Your task to perform on an android device: turn notification dots off Image 0: 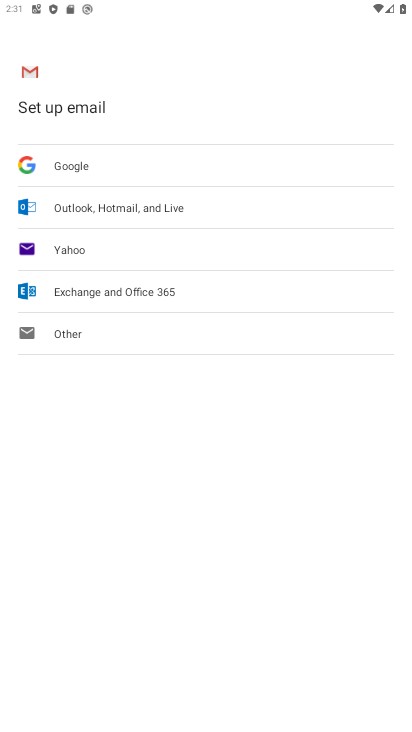
Step 0: drag from (238, 321) to (244, 20)
Your task to perform on an android device: turn notification dots off Image 1: 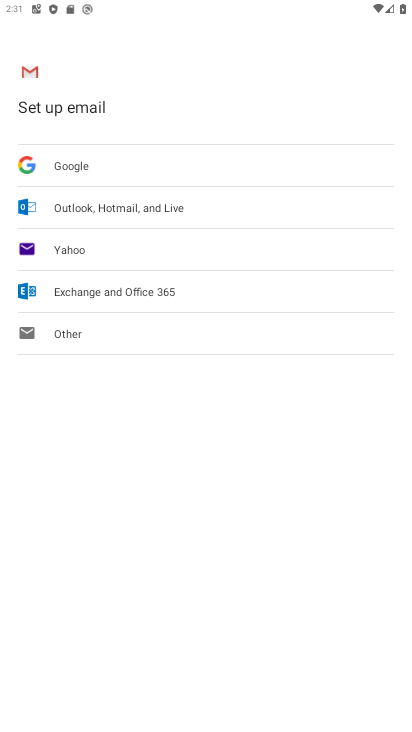
Step 1: press home button
Your task to perform on an android device: turn notification dots off Image 2: 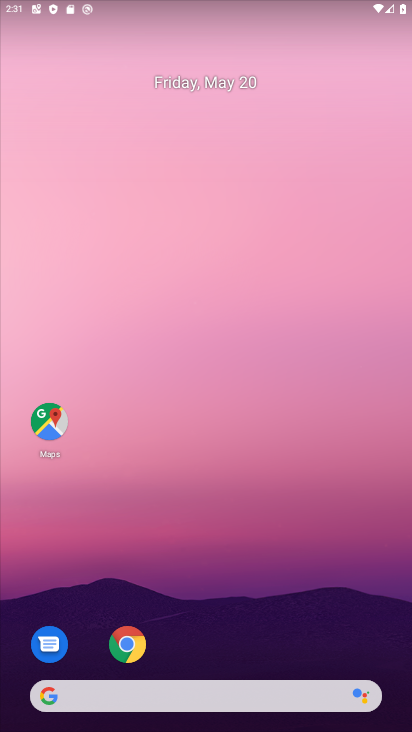
Step 2: drag from (311, 623) to (265, 82)
Your task to perform on an android device: turn notification dots off Image 3: 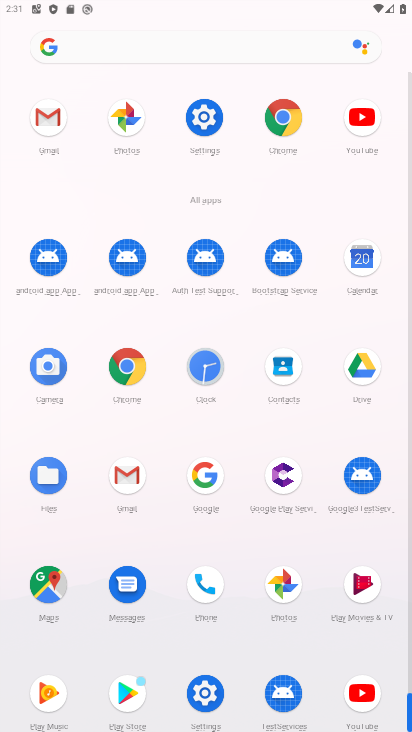
Step 3: click (206, 104)
Your task to perform on an android device: turn notification dots off Image 4: 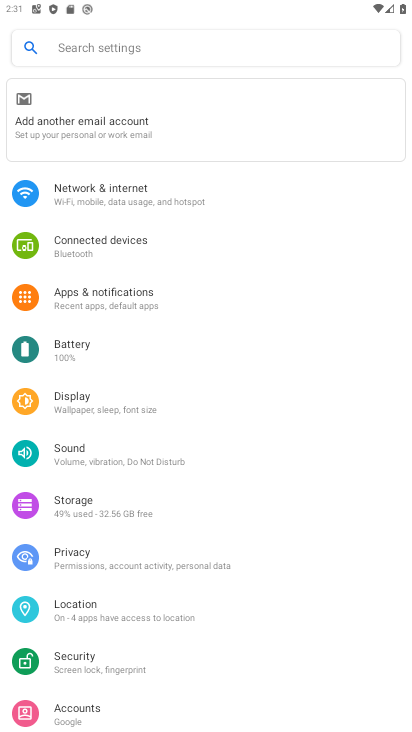
Step 4: click (145, 294)
Your task to perform on an android device: turn notification dots off Image 5: 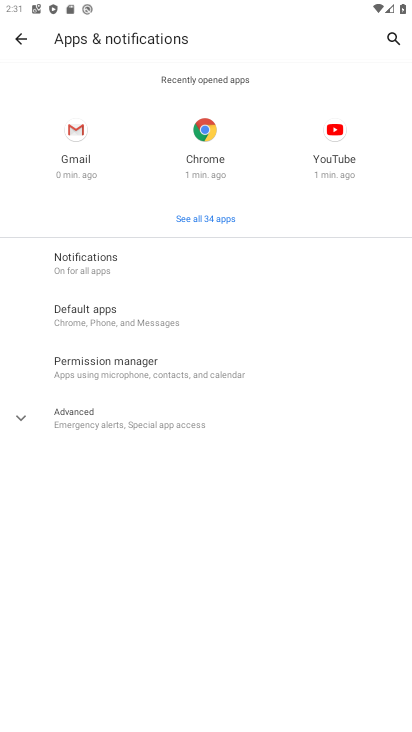
Step 5: click (115, 257)
Your task to perform on an android device: turn notification dots off Image 6: 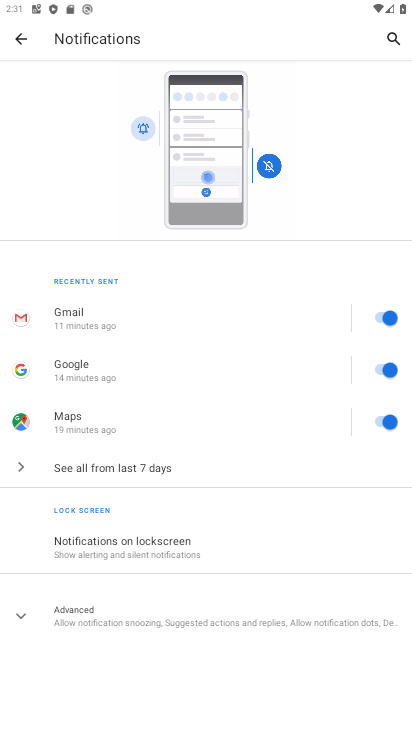
Step 6: click (180, 622)
Your task to perform on an android device: turn notification dots off Image 7: 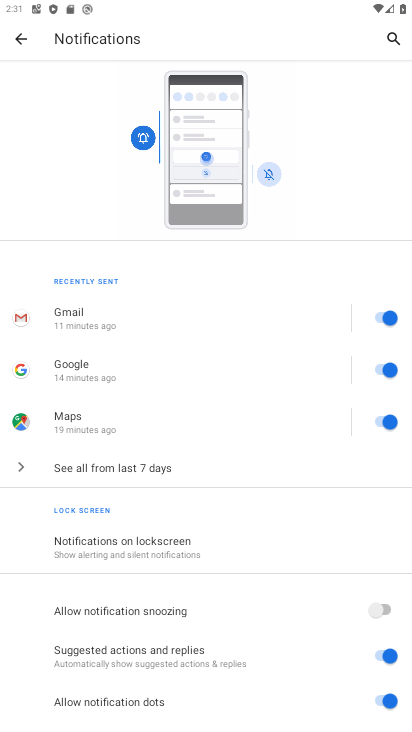
Step 7: click (379, 703)
Your task to perform on an android device: turn notification dots off Image 8: 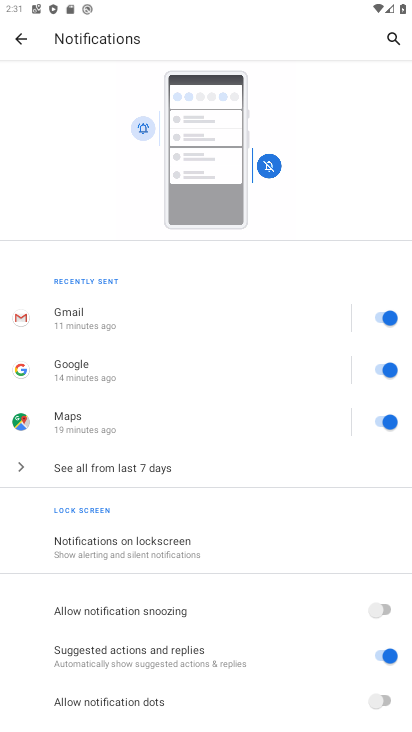
Step 8: task complete